Your task to perform on an android device: turn off priority inbox in the gmail app Image 0: 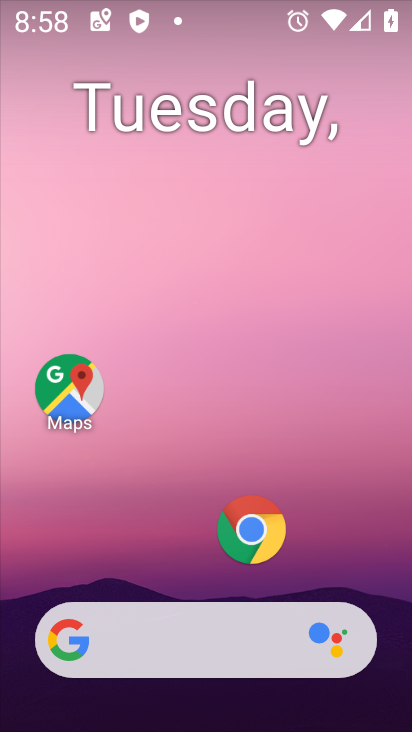
Step 0: press home button
Your task to perform on an android device: turn off priority inbox in the gmail app Image 1: 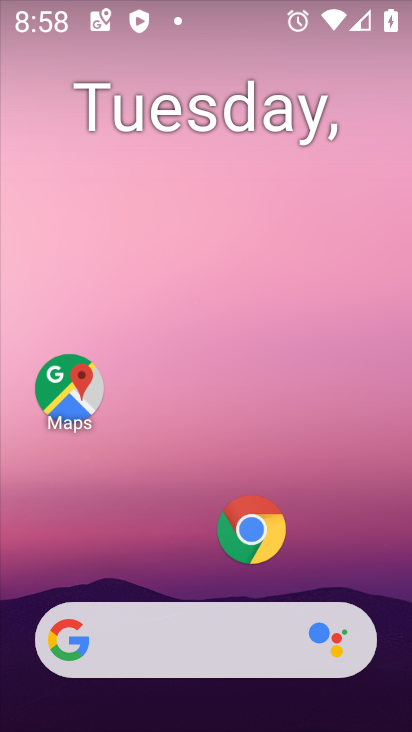
Step 1: press home button
Your task to perform on an android device: turn off priority inbox in the gmail app Image 2: 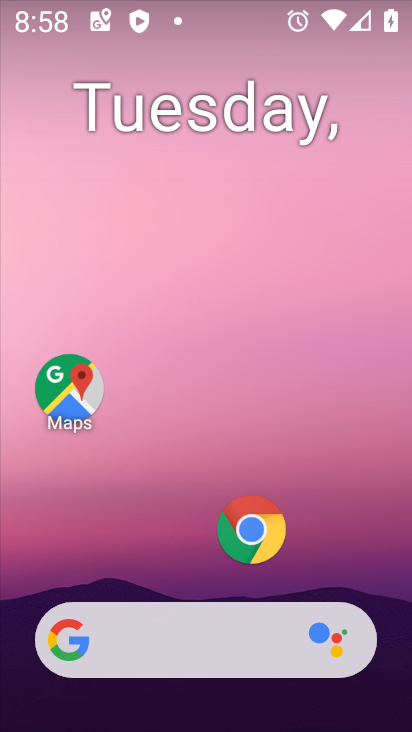
Step 2: drag from (196, 586) to (212, 57)
Your task to perform on an android device: turn off priority inbox in the gmail app Image 3: 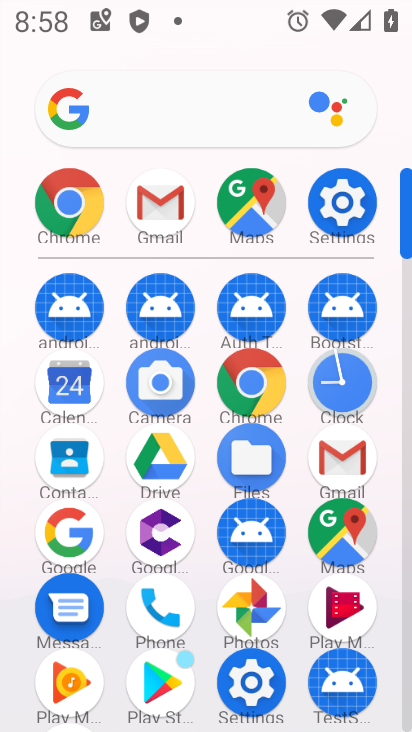
Step 3: click (341, 448)
Your task to perform on an android device: turn off priority inbox in the gmail app Image 4: 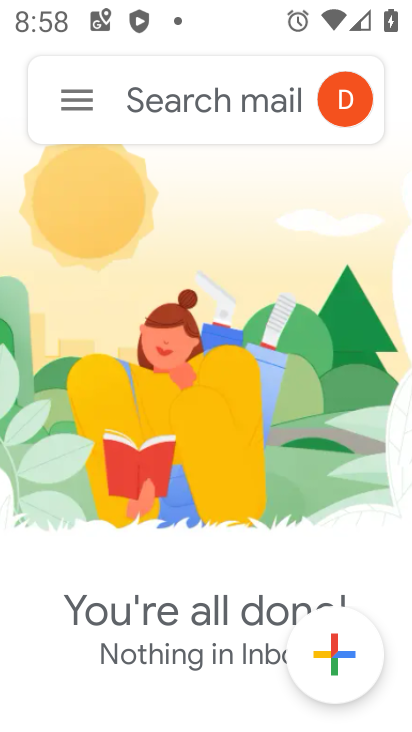
Step 4: click (66, 96)
Your task to perform on an android device: turn off priority inbox in the gmail app Image 5: 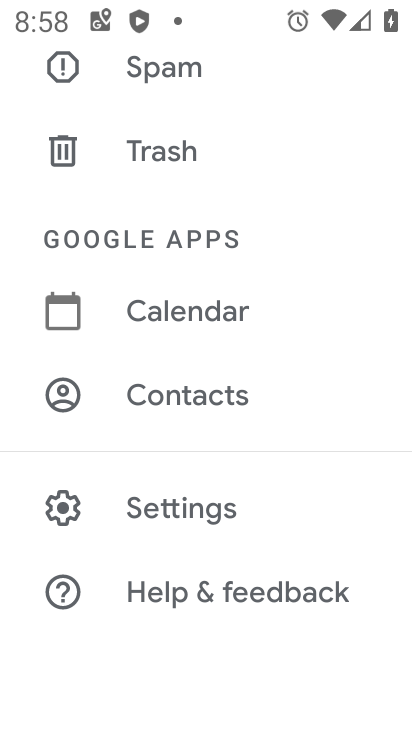
Step 5: click (104, 502)
Your task to perform on an android device: turn off priority inbox in the gmail app Image 6: 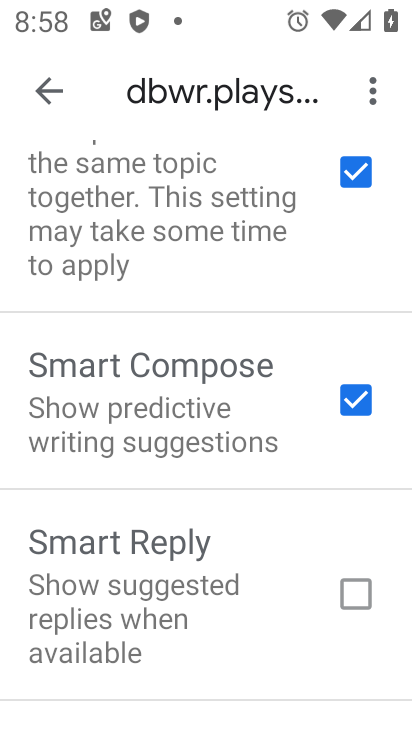
Step 6: click (57, 92)
Your task to perform on an android device: turn off priority inbox in the gmail app Image 7: 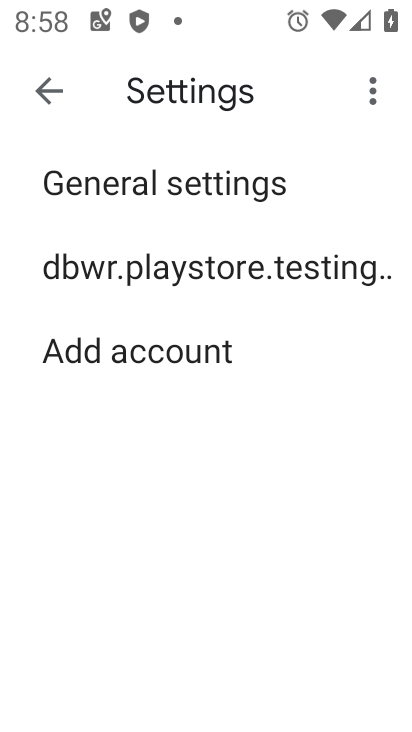
Step 7: click (270, 264)
Your task to perform on an android device: turn off priority inbox in the gmail app Image 8: 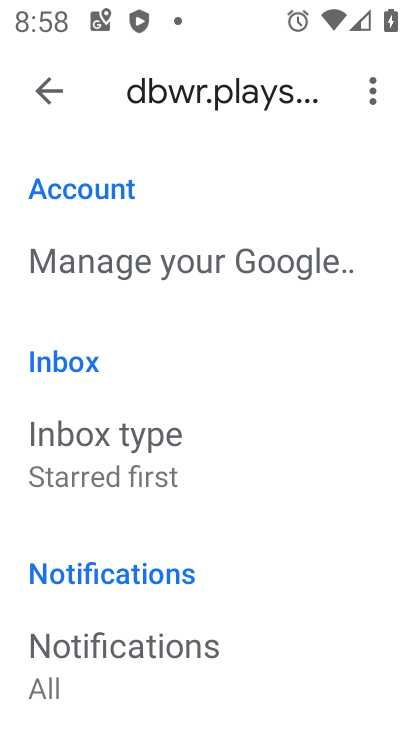
Step 8: click (195, 452)
Your task to perform on an android device: turn off priority inbox in the gmail app Image 9: 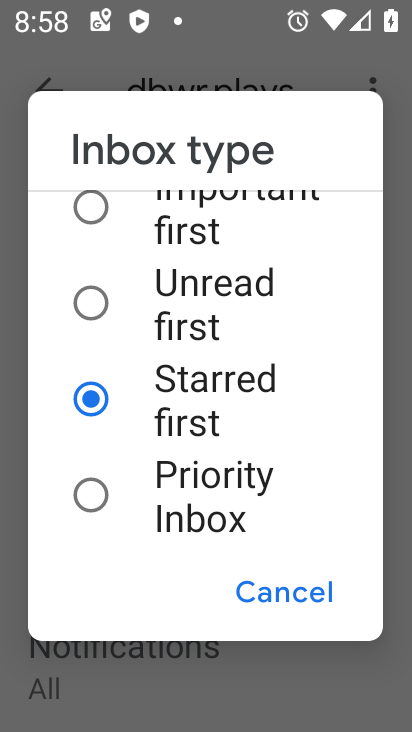
Step 9: drag from (118, 247) to (122, 485)
Your task to perform on an android device: turn off priority inbox in the gmail app Image 10: 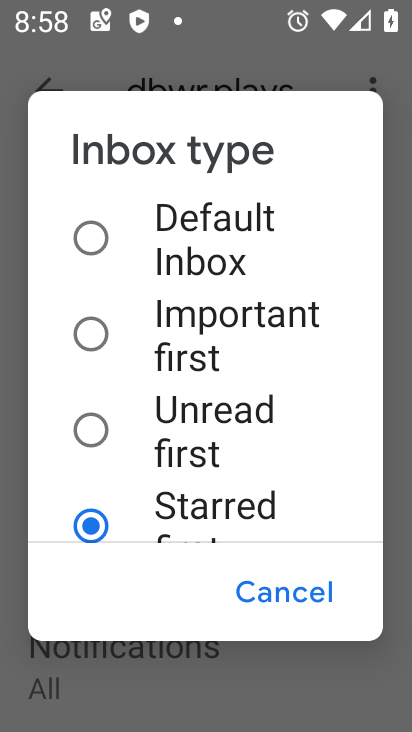
Step 10: click (89, 230)
Your task to perform on an android device: turn off priority inbox in the gmail app Image 11: 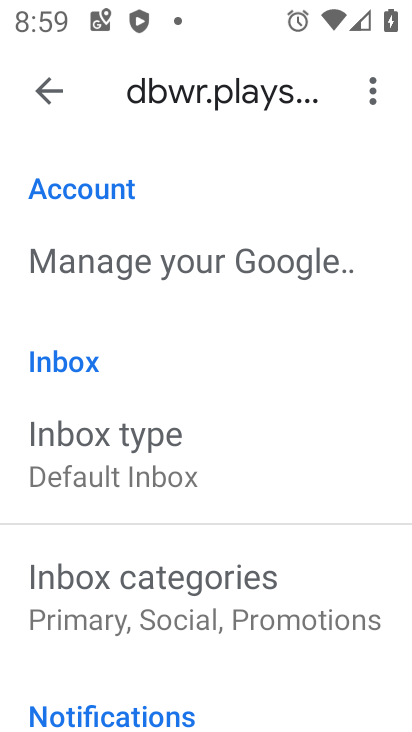
Step 11: task complete